Your task to perform on an android device: Search for Italian restaurants on Maps Image 0: 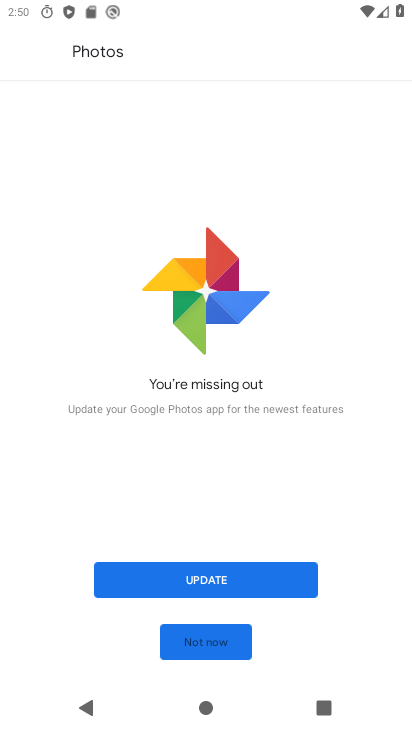
Step 0: press home button
Your task to perform on an android device: Search for Italian restaurants on Maps Image 1: 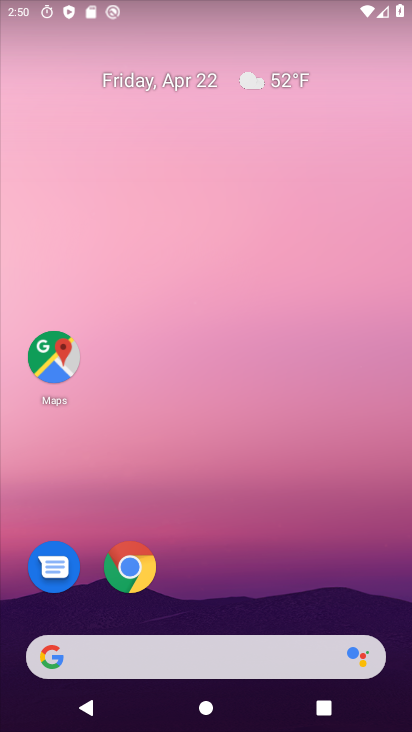
Step 1: click (51, 360)
Your task to perform on an android device: Search for Italian restaurants on Maps Image 2: 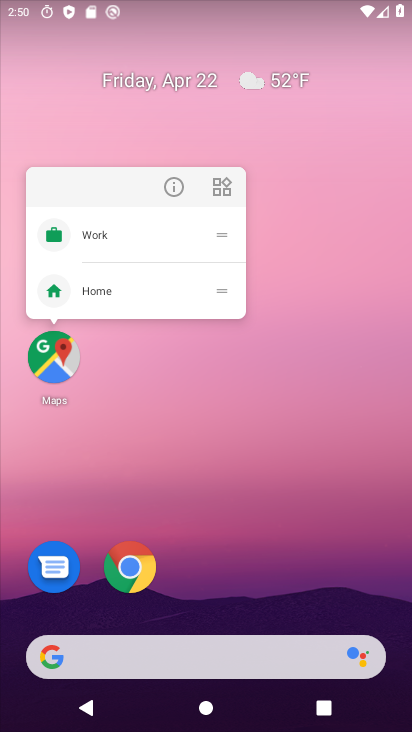
Step 2: click (49, 363)
Your task to perform on an android device: Search for Italian restaurants on Maps Image 3: 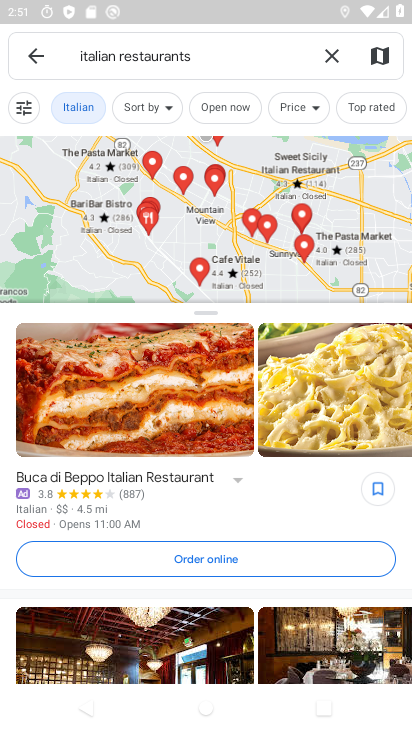
Step 3: task complete